Your task to perform on an android device: turn notification dots off Image 0: 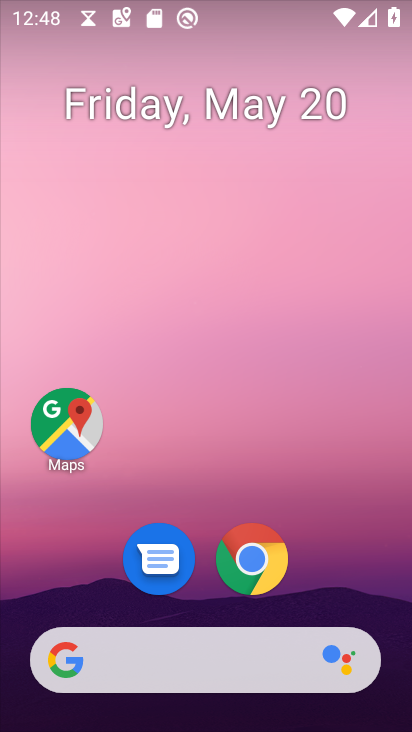
Step 0: drag from (325, 557) to (316, 186)
Your task to perform on an android device: turn notification dots off Image 1: 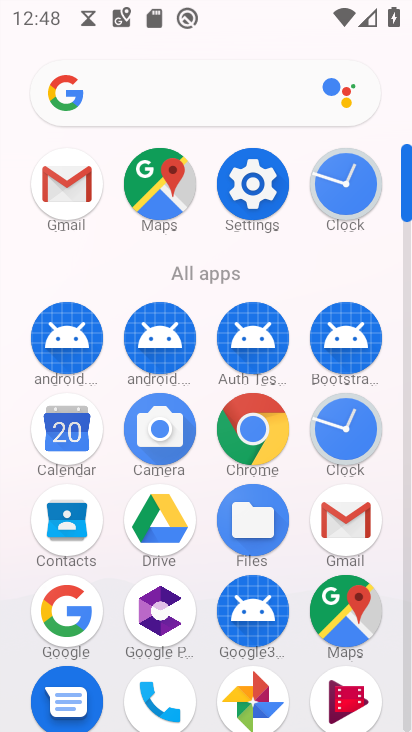
Step 1: click (249, 191)
Your task to perform on an android device: turn notification dots off Image 2: 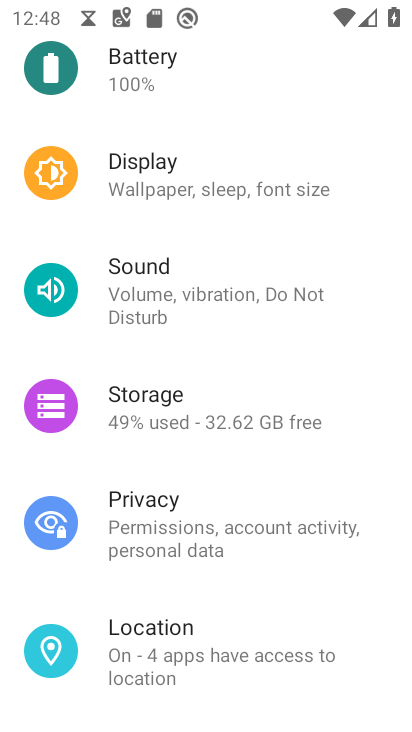
Step 2: drag from (186, 540) to (212, 300)
Your task to perform on an android device: turn notification dots off Image 3: 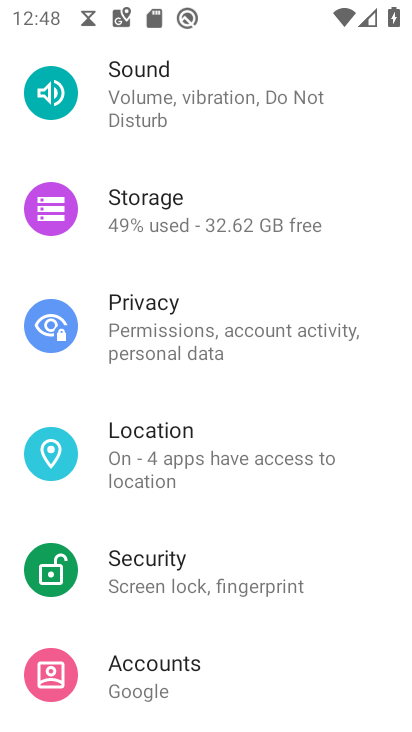
Step 3: drag from (210, 168) to (222, 658)
Your task to perform on an android device: turn notification dots off Image 4: 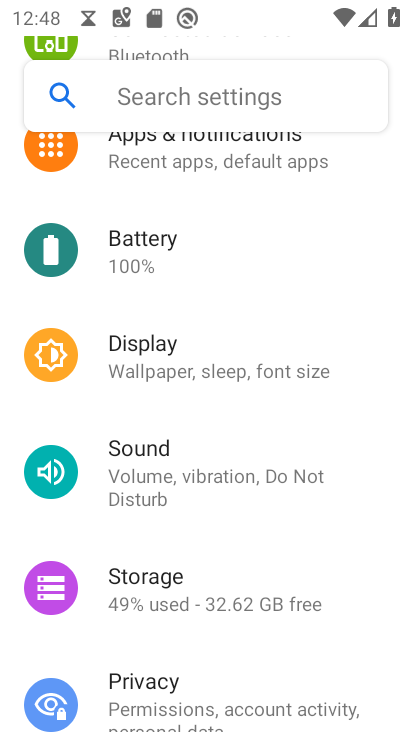
Step 4: click (218, 157)
Your task to perform on an android device: turn notification dots off Image 5: 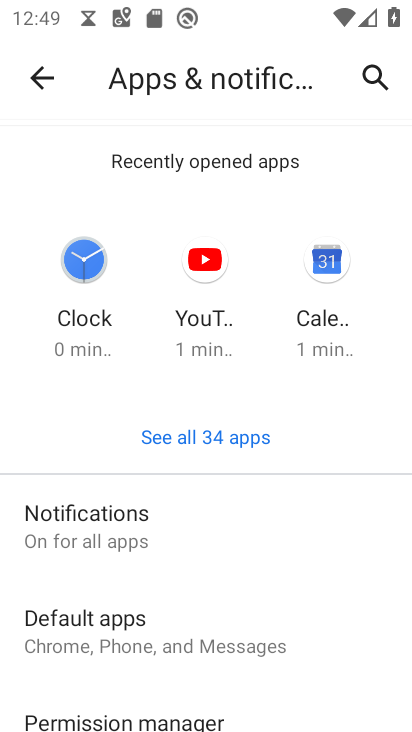
Step 5: click (148, 523)
Your task to perform on an android device: turn notification dots off Image 6: 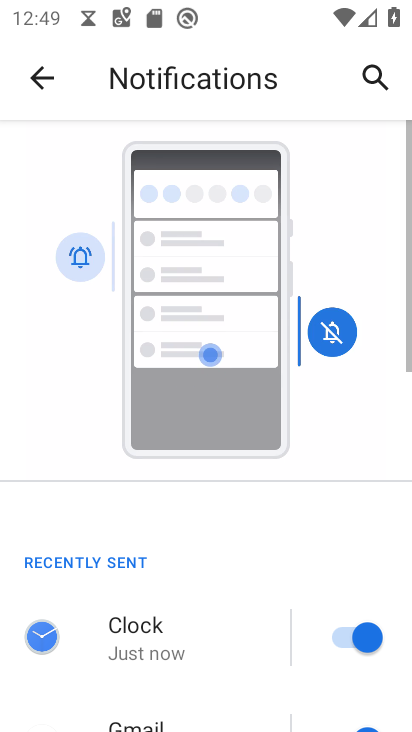
Step 6: drag from (195, 665) to (204, 296)
Your task to perform on an android device: turn notification dots off Image 7: 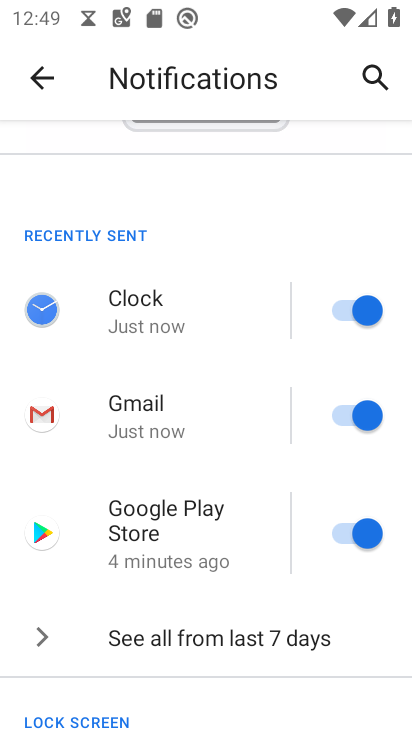
Step 7: drag from (217, 657) to (243, 207)
Your task to perform on an android device: turn notification dots off Image 8: 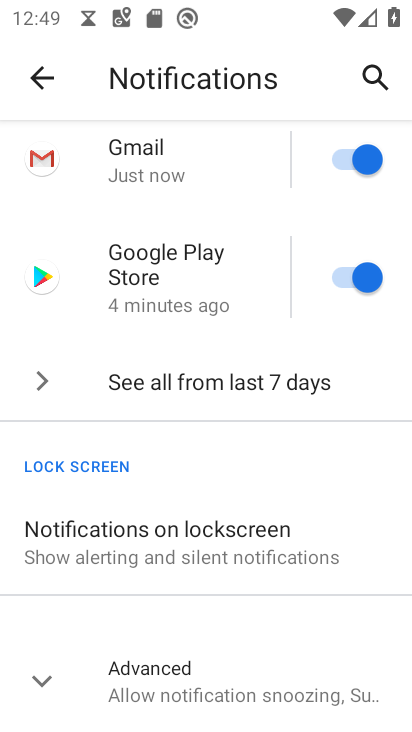
Step 8: click (193, 551)
Your task to perform on an android device: turn notification dots off Image 9: 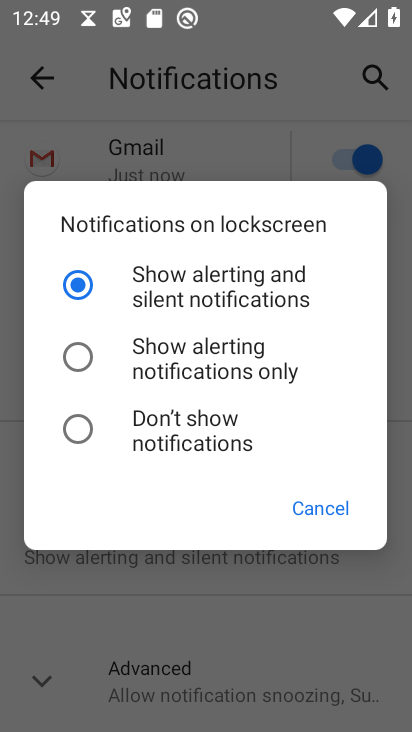
Step 9: press back button
Your task to perform on an android device: turn notification dots off Image 10: 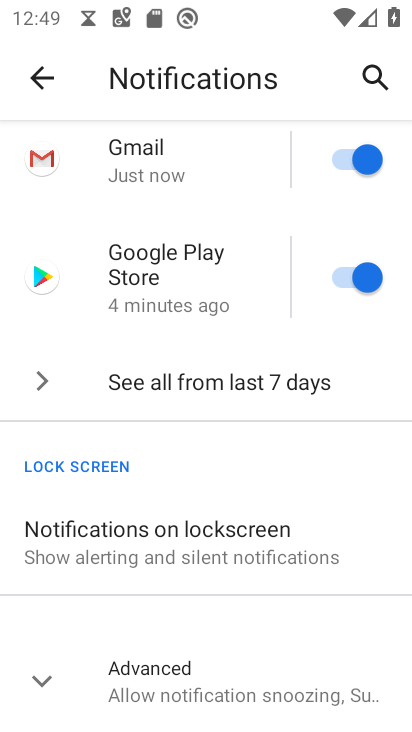
Step 10: click (158, 683)
Your task to perform on an android device: turn notification dots off Image 11: 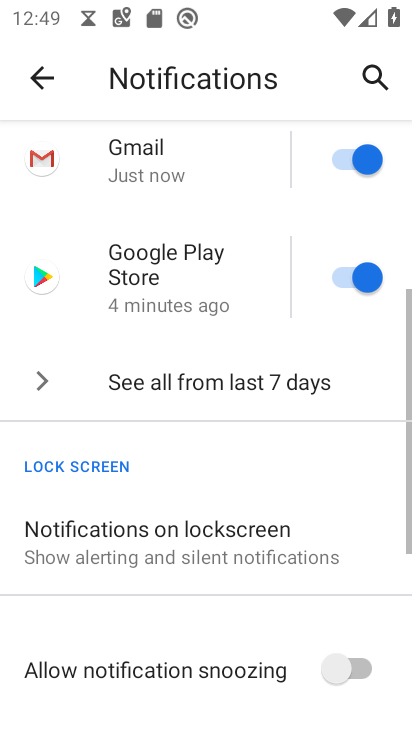
Step 11: drag from (148, 663) to (216, 239)
Your task to perform on an android device: turn notification dots off Image 12: 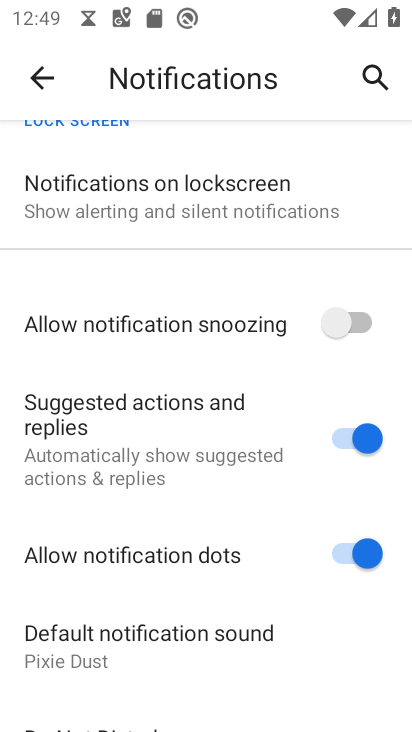
Step 12: click (371, 553)
Your task to perform on an android device: turn notification dots off Image 13: 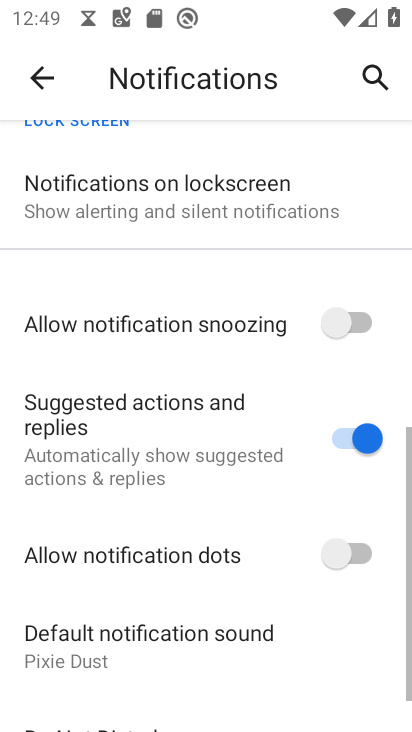
Step 13: task complete